Your task to perform on an android device: Open Maps and search for coffee Image 0: 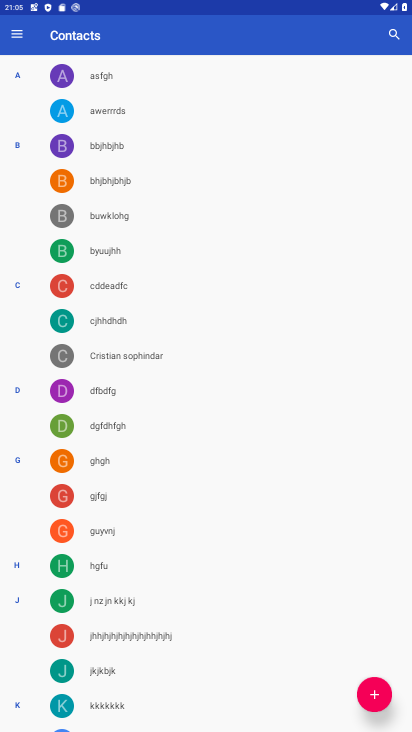
Step 0: press home button
Your task to perform on an android device: Open Maps and search for coffee Image 1: 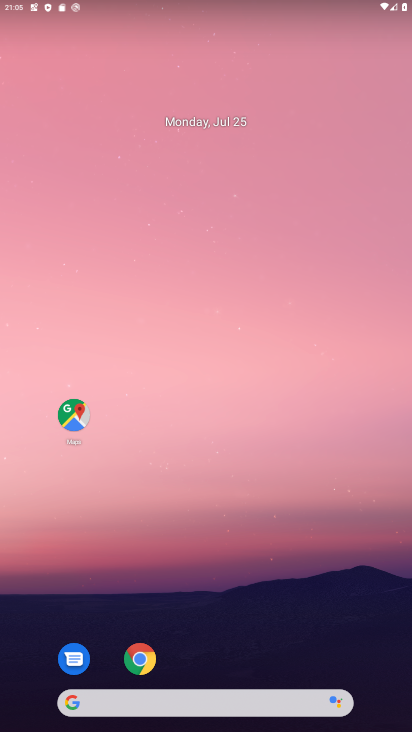
Step 1: click (193, 642)
Your task to perform on an android device: Open Maps and search for coffee Image 2: 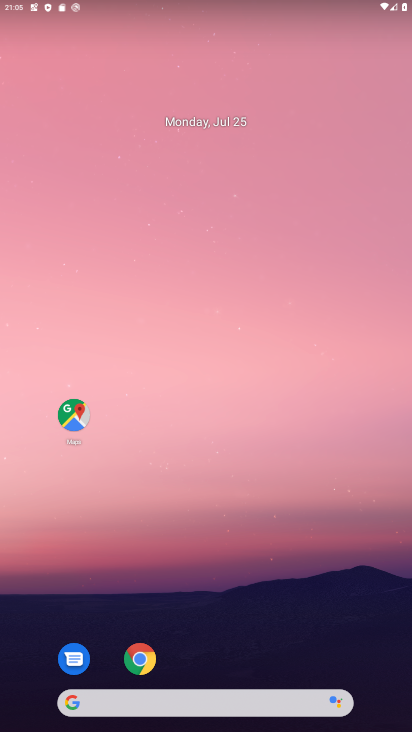
Step 2: click (83, 411)
Your task to perform on an android device: Open Maps and search for coffee Image 3: 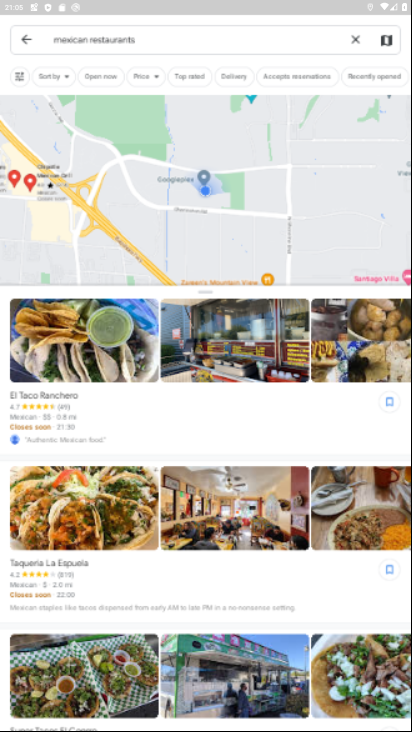
Step 3: click (352, 40)
Your task to perform on an android device: Open Maps and search for coffee Image 4: 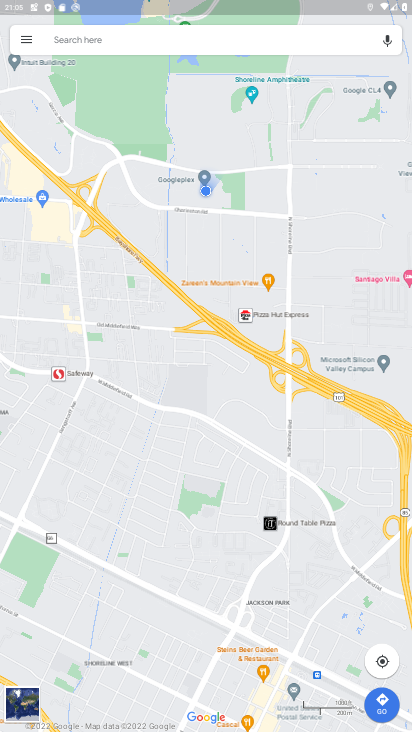
Step 4: click (163, 36)
Your task to perform on an android device: Open Maps and search for coffee Image 5: 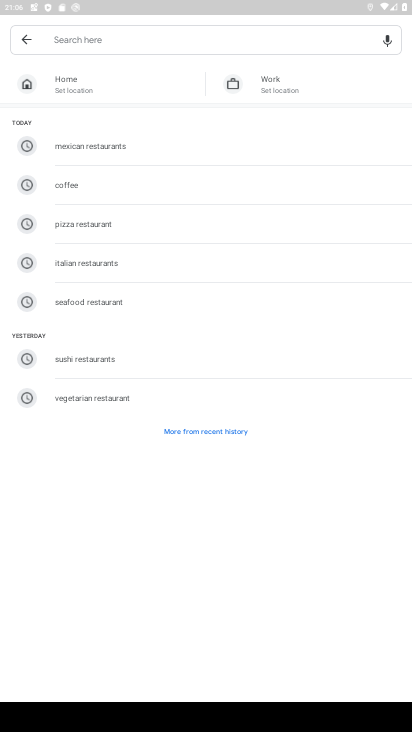
Step 5: click (58, 186)
Your task to perform on an android device: Open Maps and search for coffee Image 6: 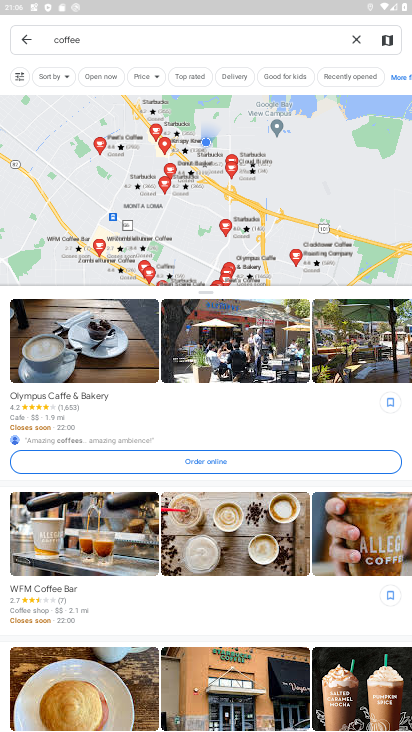
Step 6: task complete